Your task to perform on an android device: Search for a sofa on article.com Image 0: 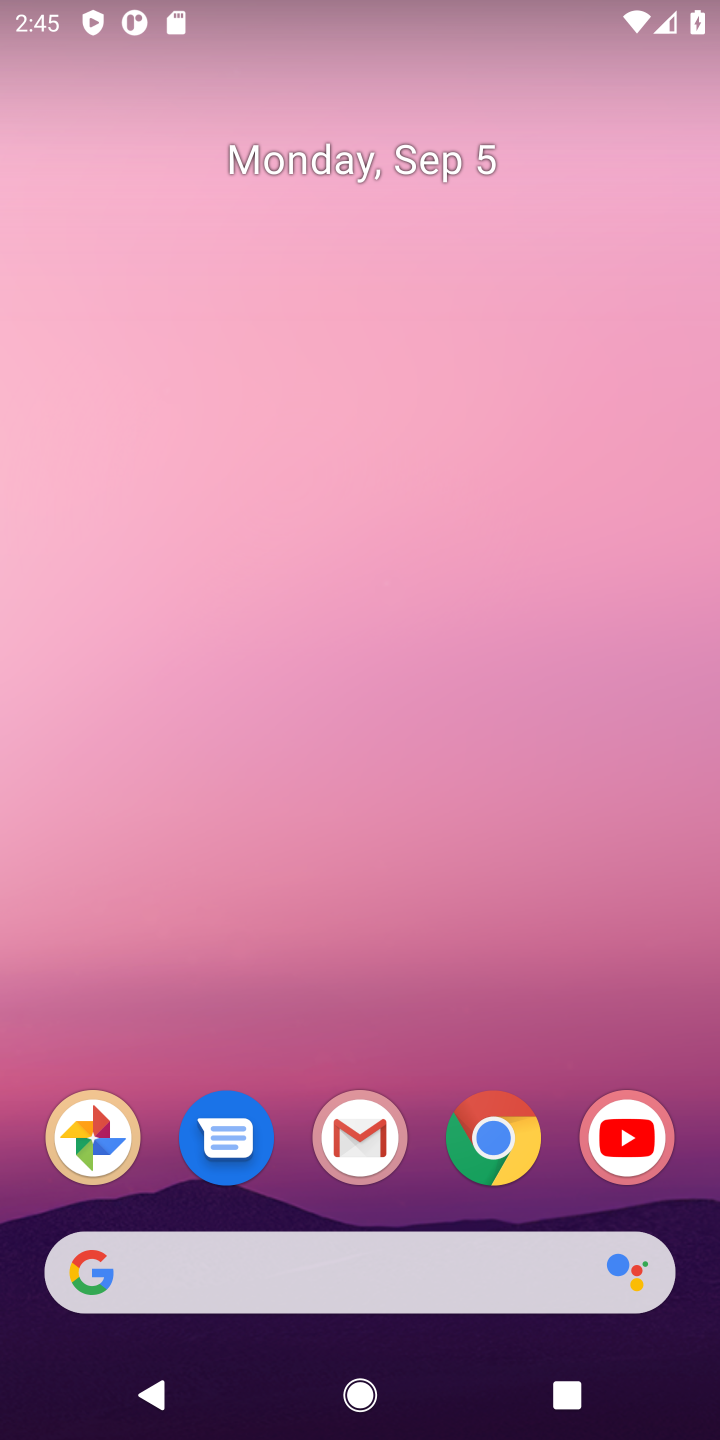
Step 0: click (521, 1150)
Your task to perform on an android device: Search for a sofa on article.com Image 1: 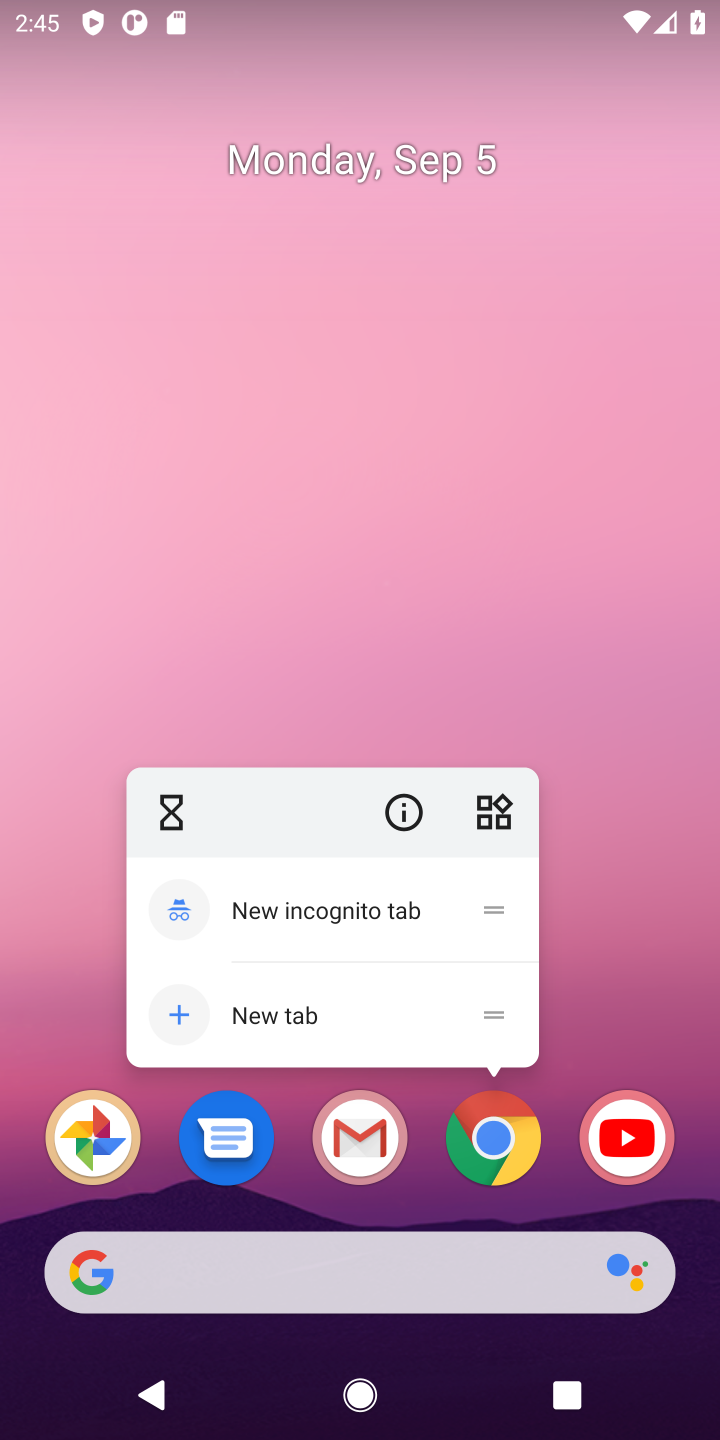
Step 1: click (521, 1150)
Your task to perform on an android device: Search for a sofa on article.com Image 2: 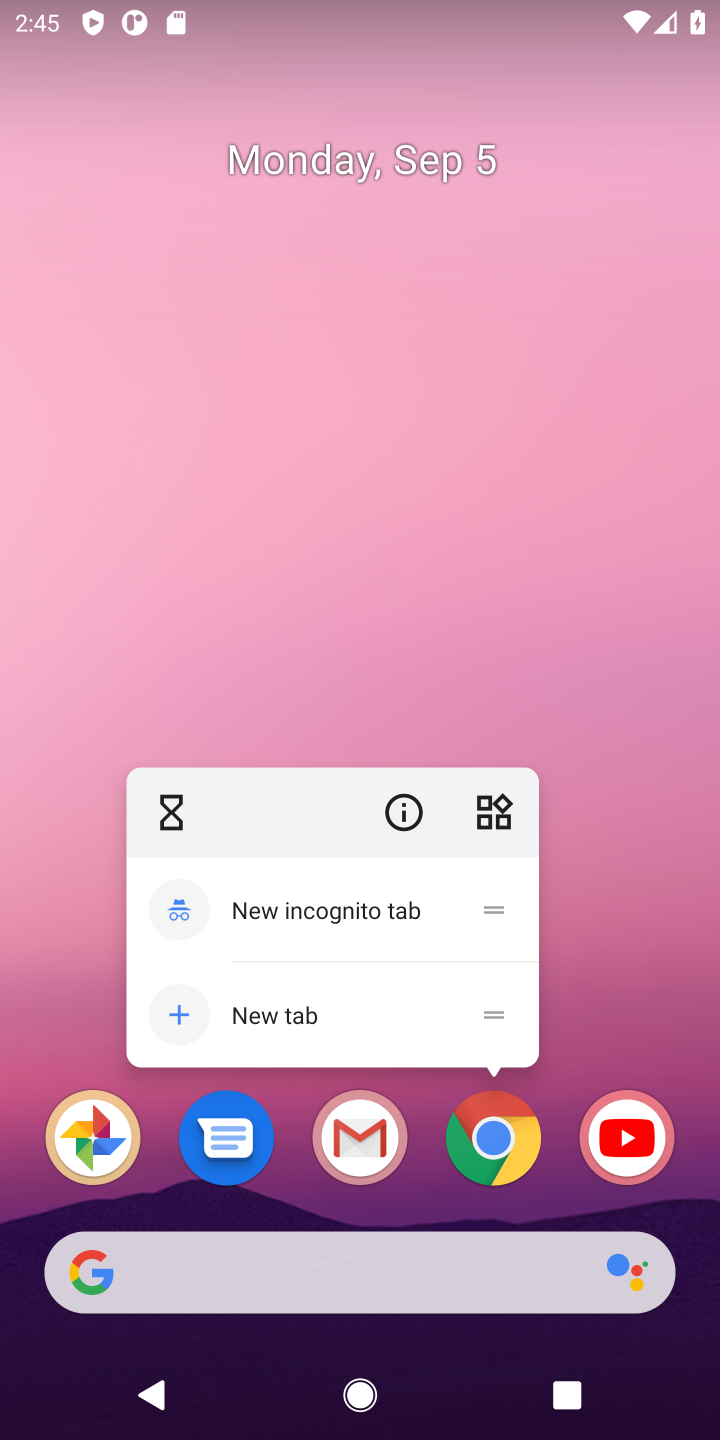
Step 2: click (530, 1150)
Your task to perform on an android device: Search for a sofa on article.com Image 3: 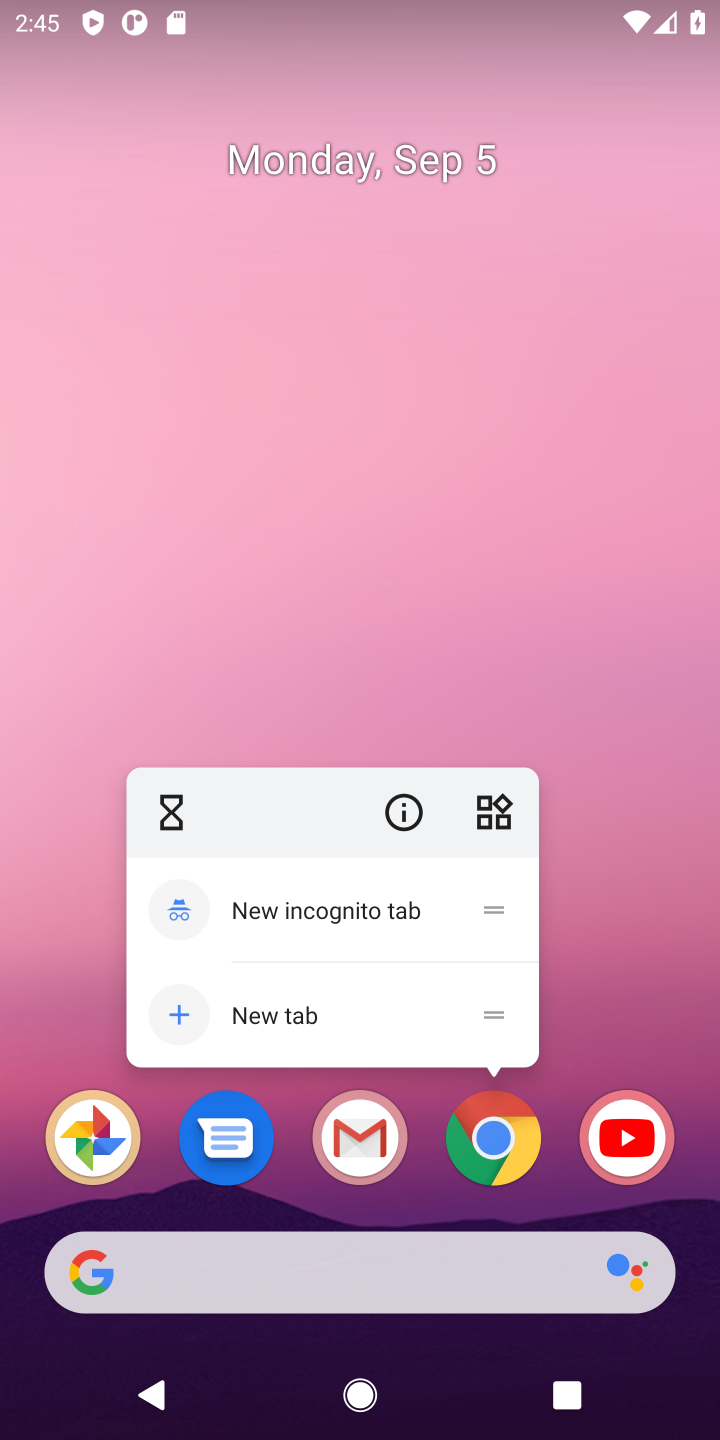
Step 3: click (486, 1150)
Your task to perform on an android device: Search for a sofa on article.com Image 4: 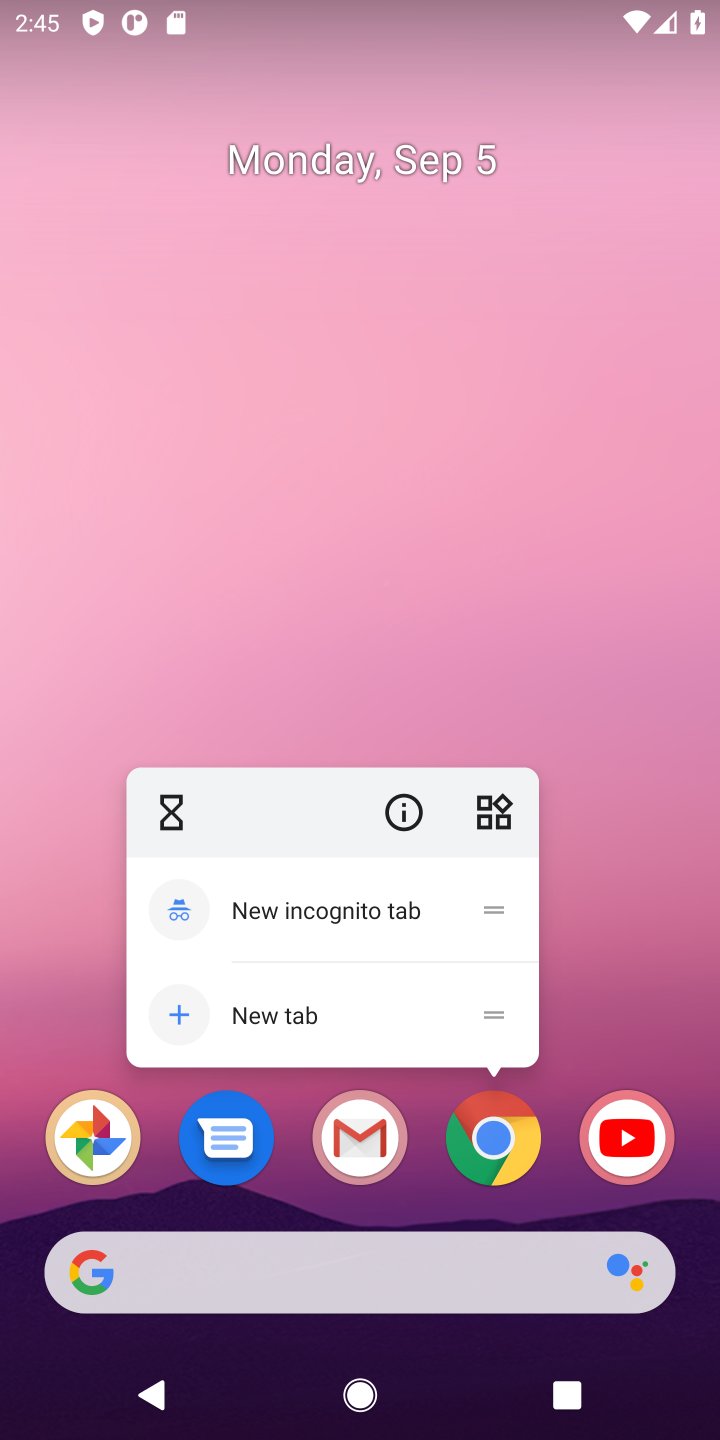
Step 4: click (501, 1152)
Your task to perform on an android device: Search for a sofa on article.com Image 5: 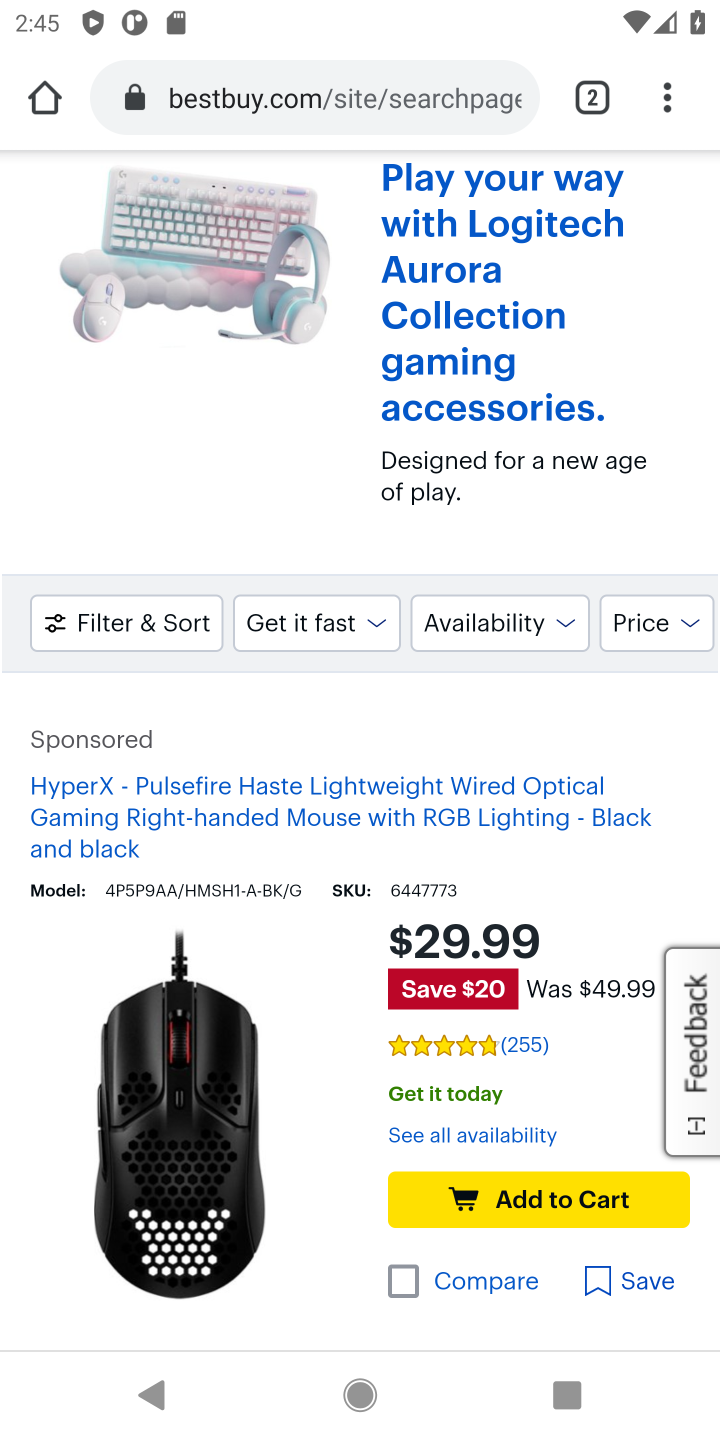
Step 5: click (222, 101)
Your task to perform on an android device: Search for a sofa on article.com Image 6: 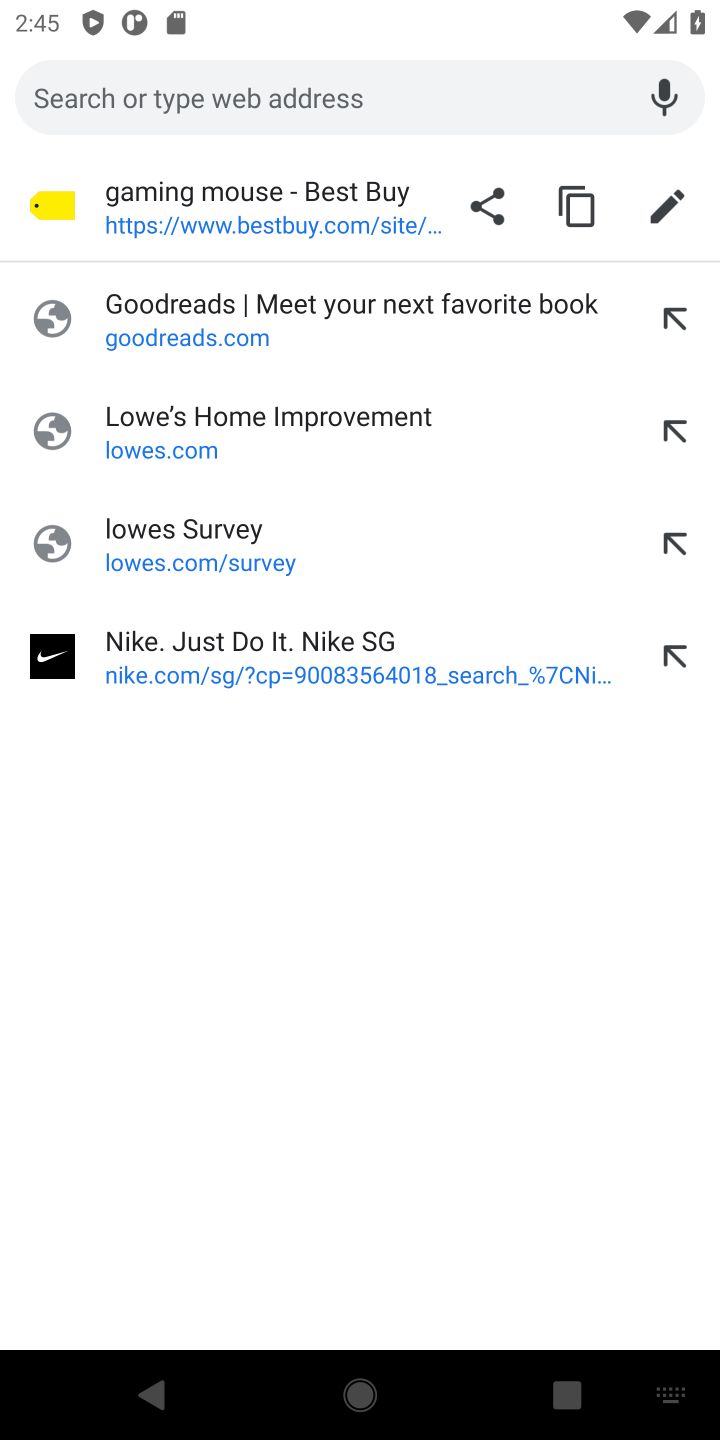
Step 6: type "article.com"
Your task to perform on an android device: Search for a sofa on article.com Image 7: 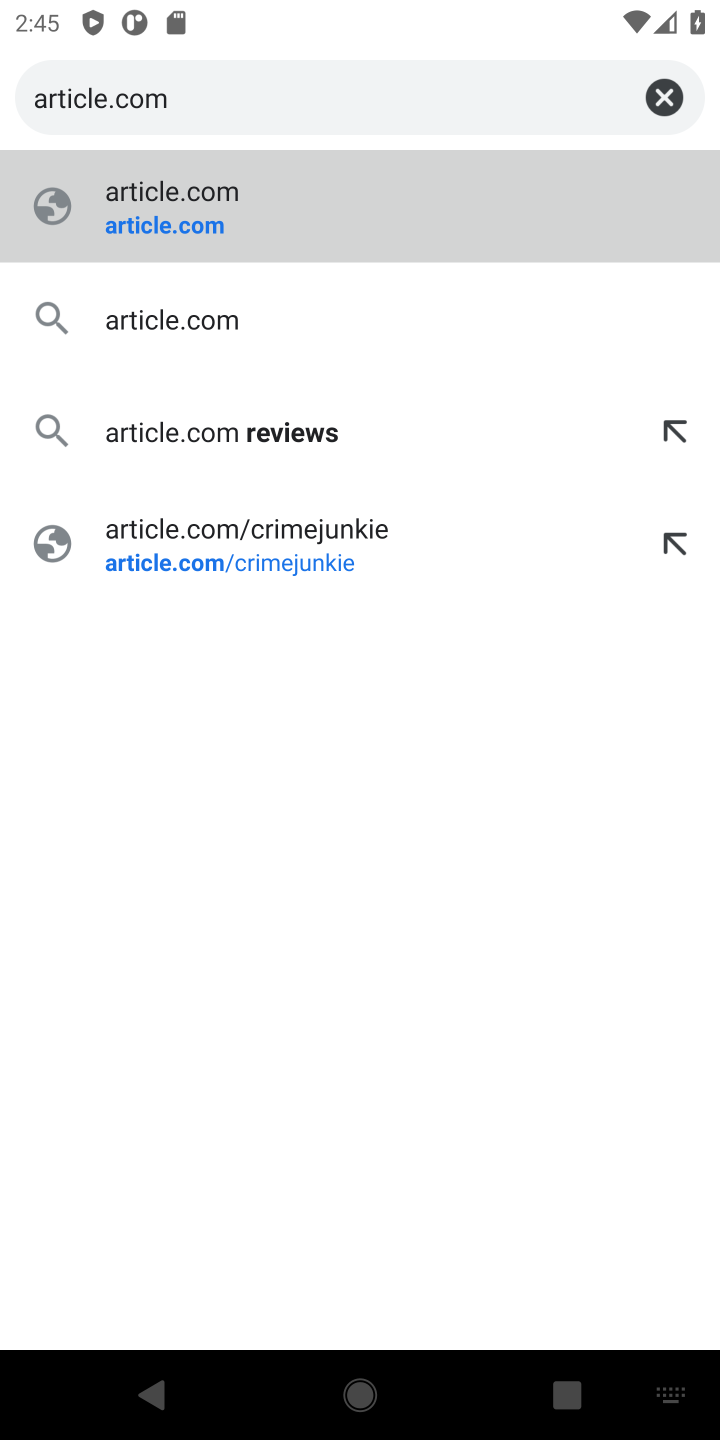
Step 7: type ""
Your task to perform on an android device: Search for a sofa on article.com Image 8: 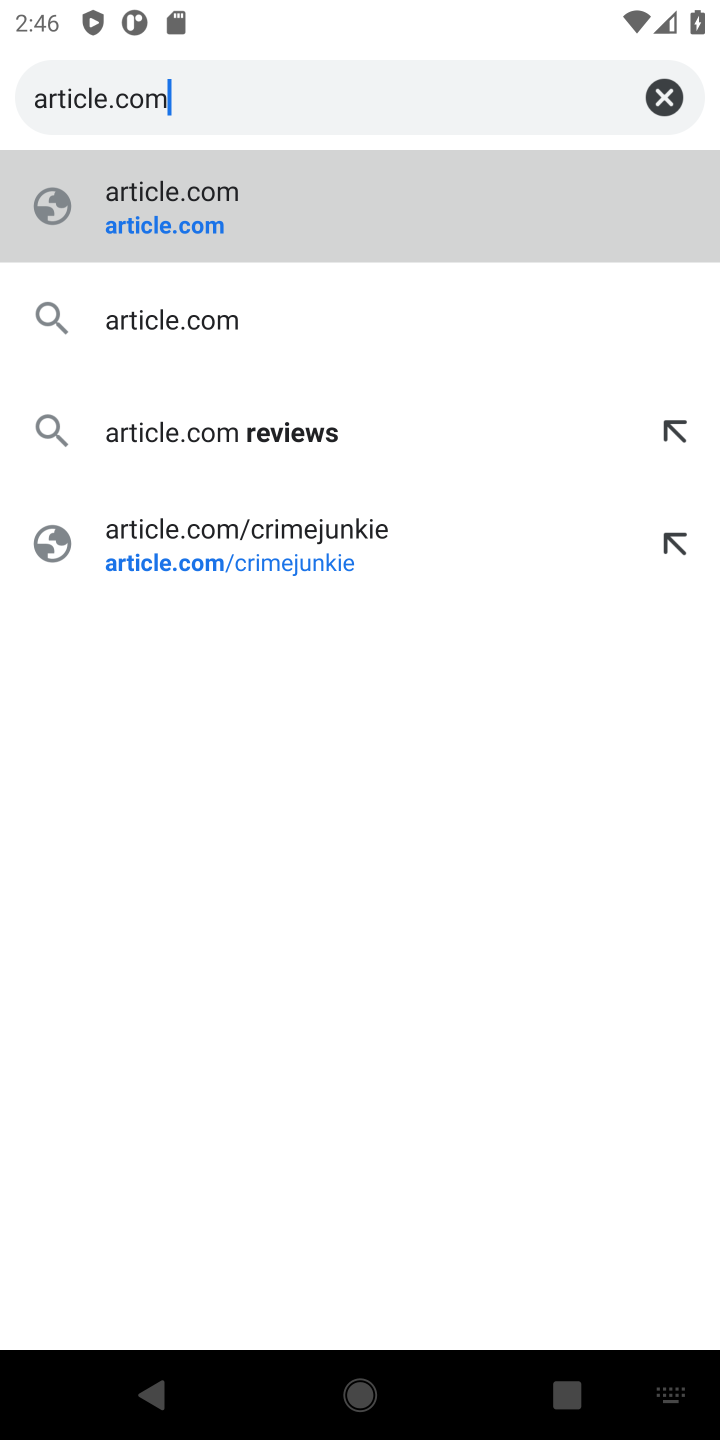
Step 8: click (161, 561)
Your task to perform on an android device: Search for a sofa on article.com Image 9: 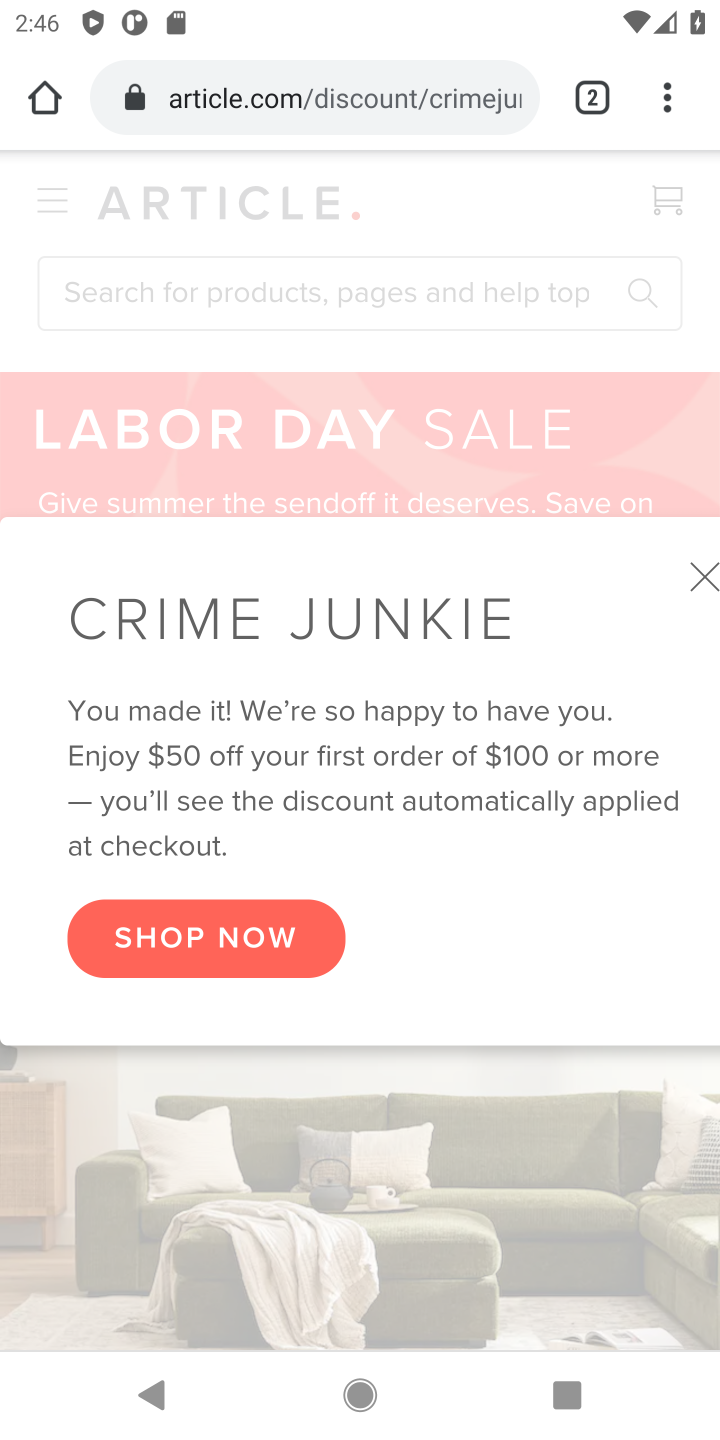
Step 9: click (205, 931)
Your task to perform on an android device: Search for a sofa on article.com Image 10: 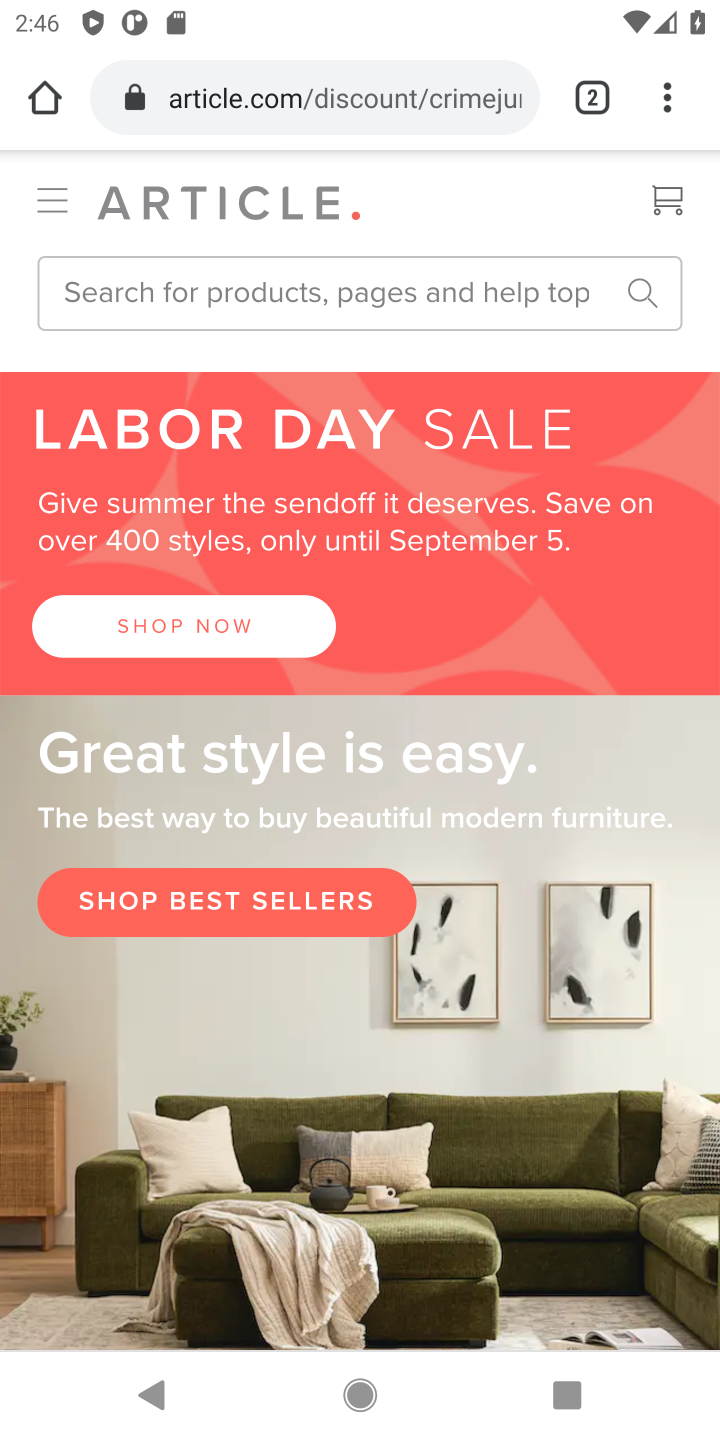
Step 10: click (137, 307)
Your task to perform on an android device: Search for a sofa on article.com Image 11: 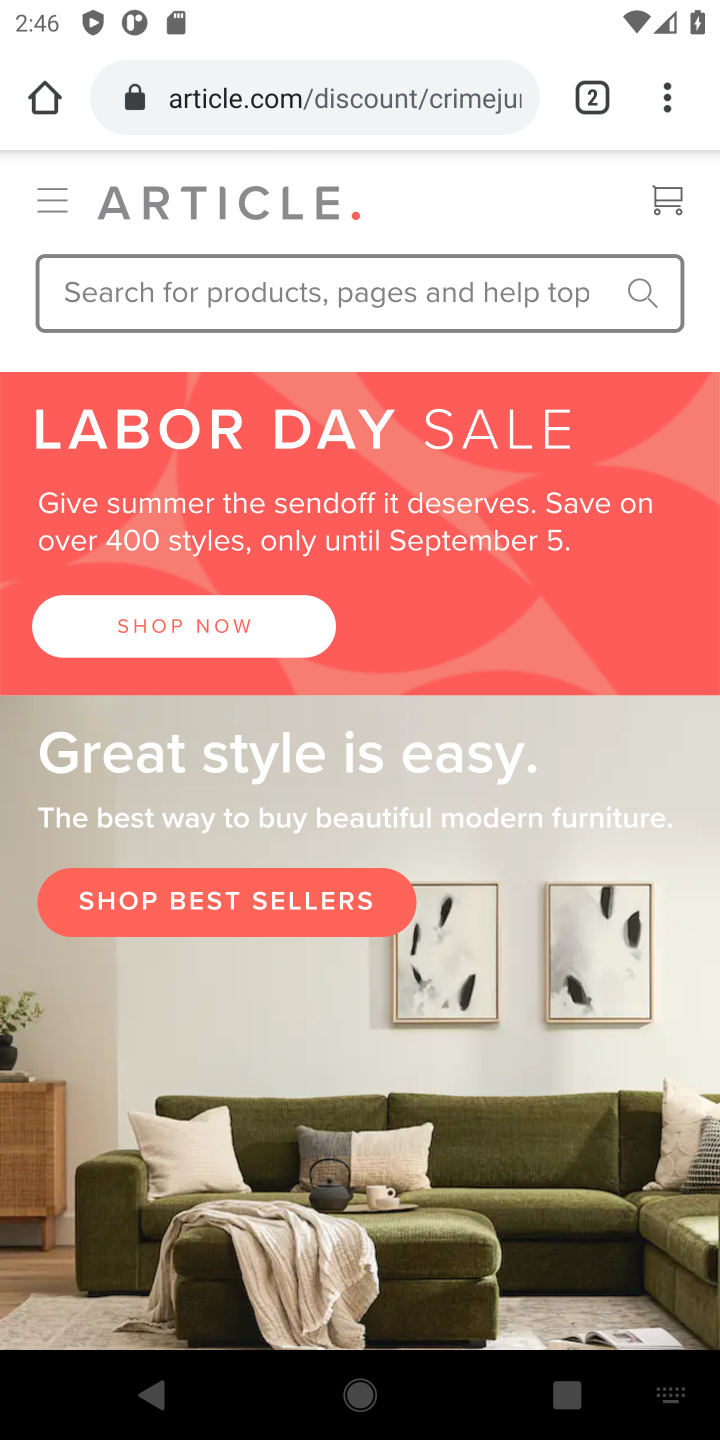
Step 11: click (115, 285)
Your task to perform on an android device: Search for a sofa on article.com Image 12: 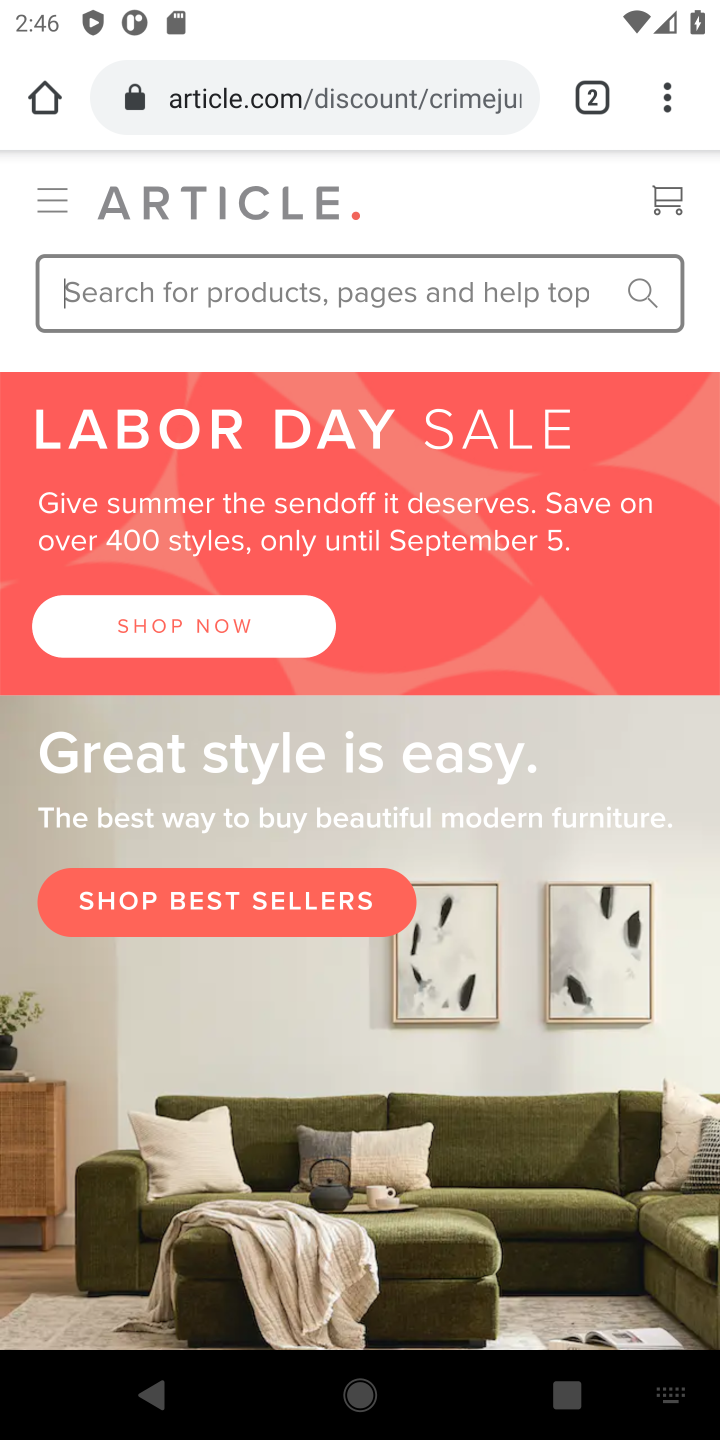
Step 12: type "sofa"
Your task to perform on an android device: Search for a sofa on article.com Image 13: 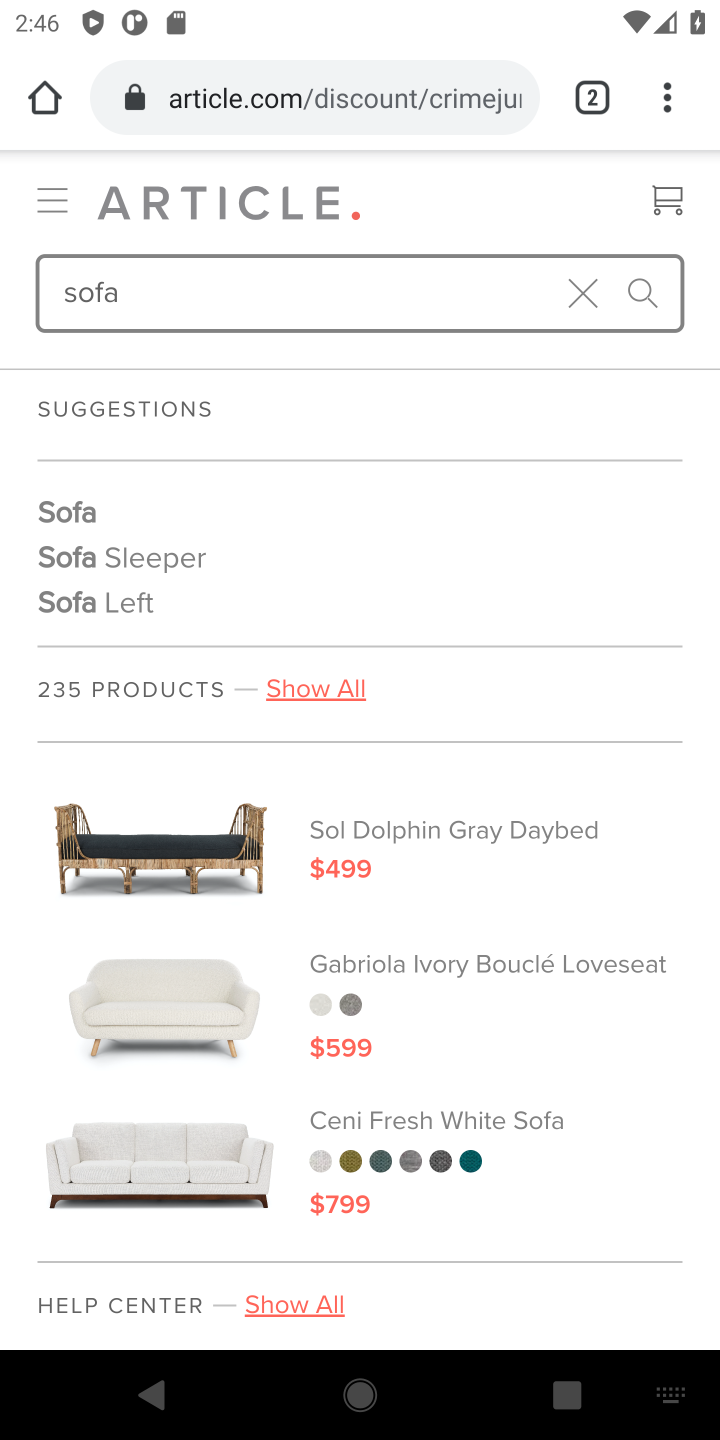
Step 13: click (313, 693)
Your task to perform on an android device: Search for a sofa on article.com Image 14: 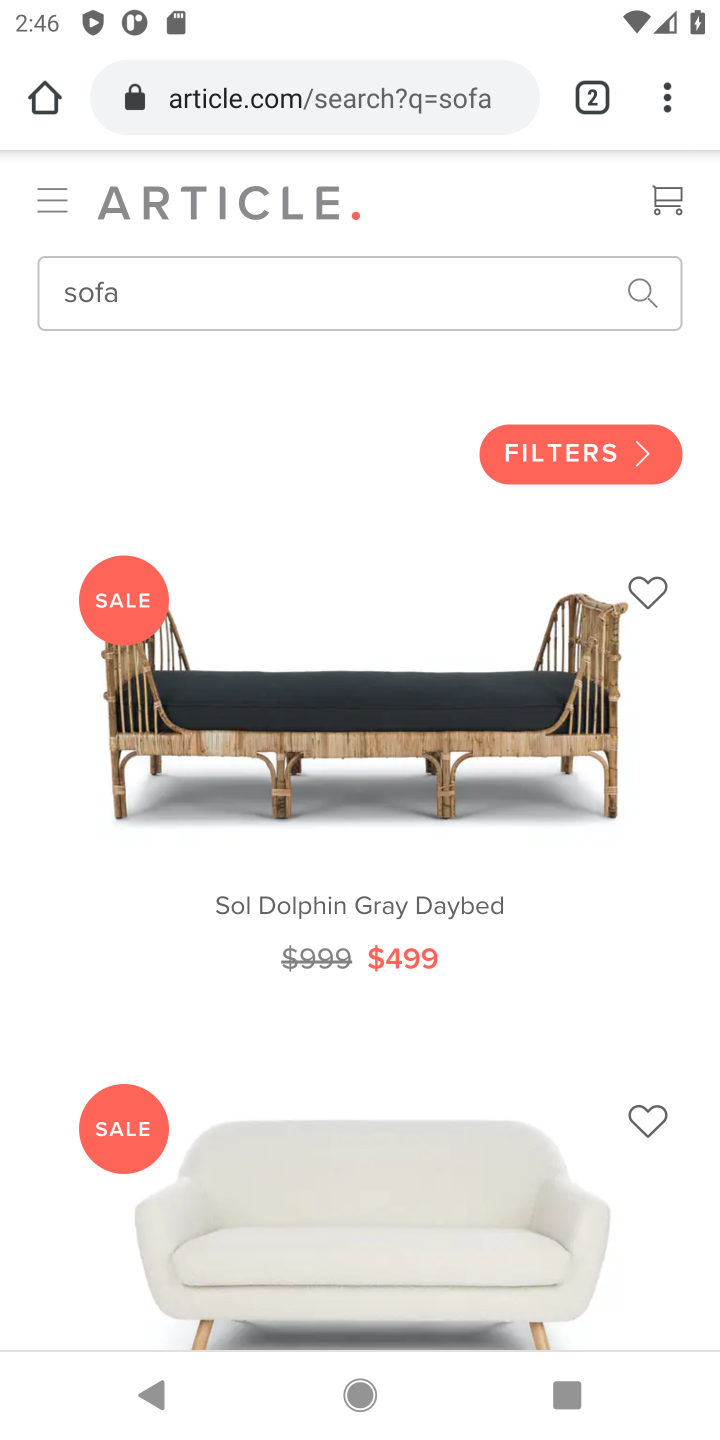
Step 14: task complete